Your task to perform on an android device: Go to internet settings Image 0: 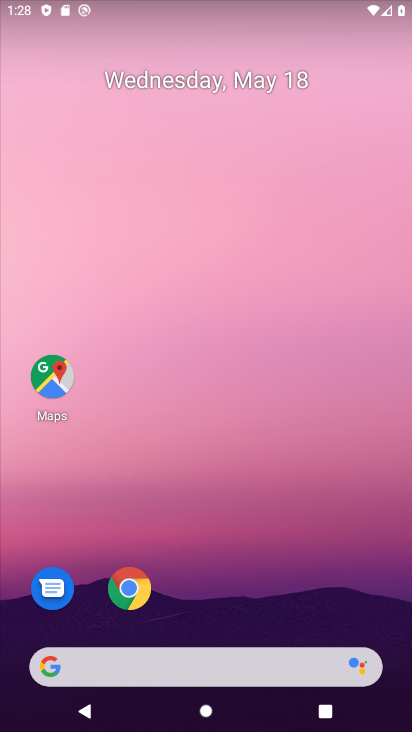
Step 0: drag from (191, 684) to (139, 251)
Your task to perform on an android device: Go to internet settings Image 1: 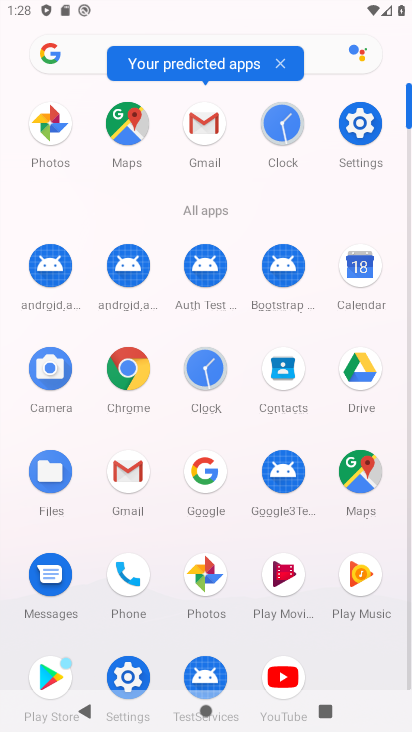
Step 1: click (353, 117)
Your task to perform on an android device: Go to internet settings Image 2: 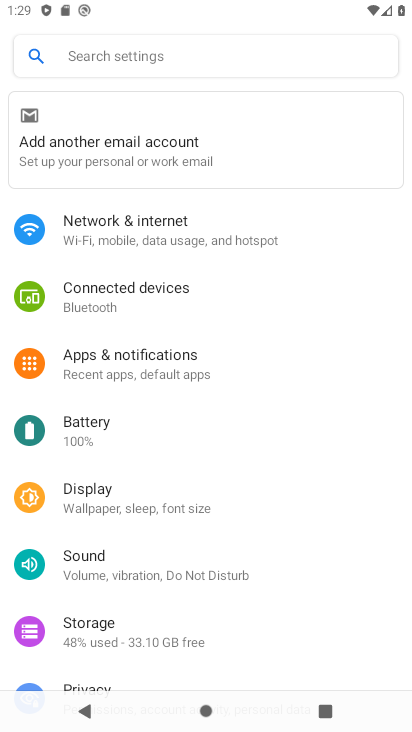
Step 2: click (127, 236)
Your task to perform on an android device: Go to internet settings Image 3: 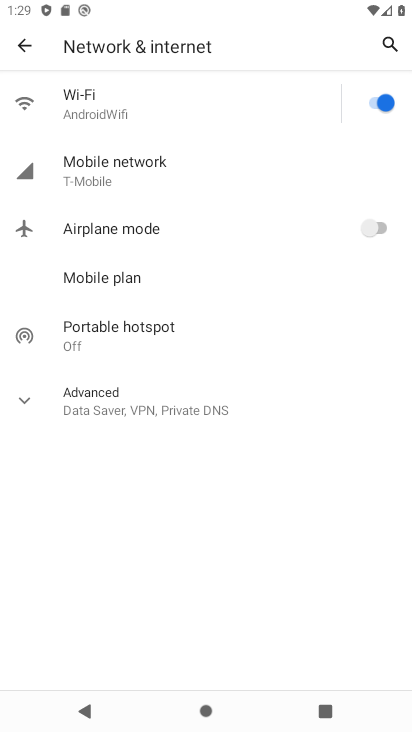
Step 3: task complete